Your task to perform on an android device: Show me the best rated vacuum on Walmart. Image 0: 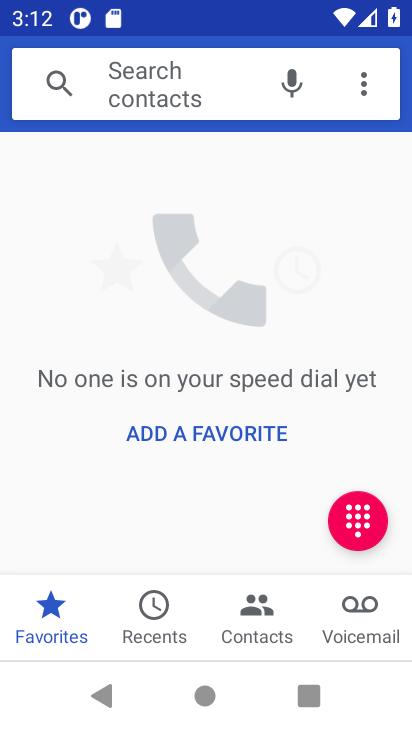
Step 0: press back button
Your task to perform on an android device: Show me the best rated vacuum on Walmart. Image 1: 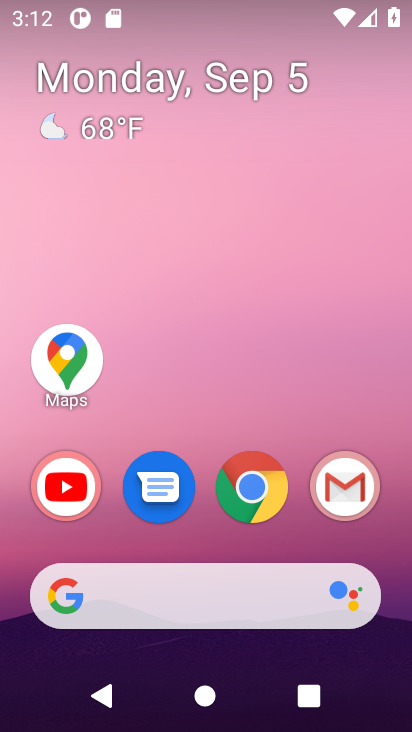
Step 1: click (268, 476)
Your task to perform on an android device: Show me the best rated vacuum on Walmart. Image 2: 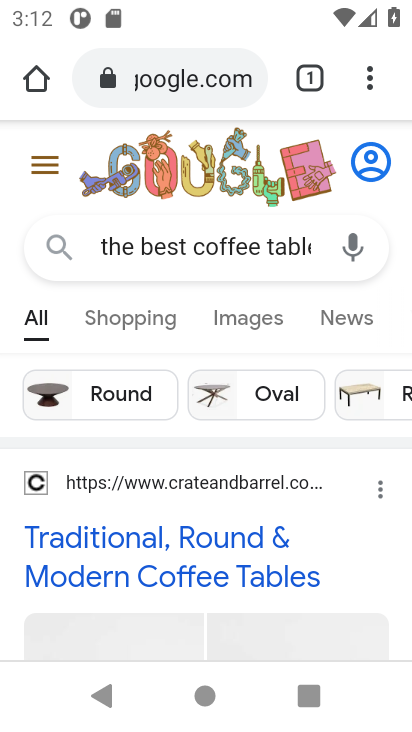
Step 2: click (172, 76)
Your task to perform on an android device: Show me the best rated vacuum on Walmart. Image 3: 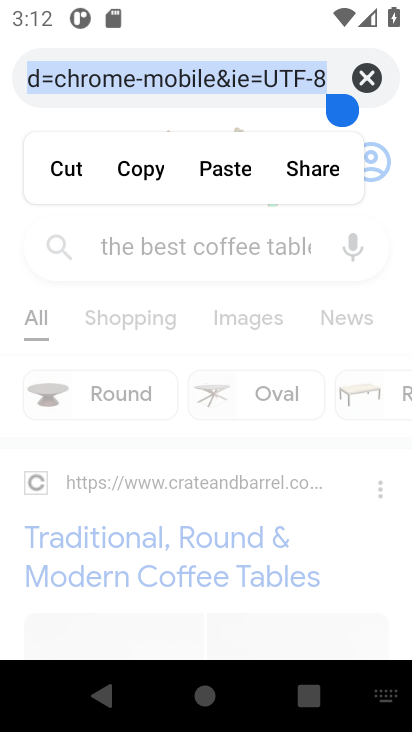
Step 3: click (373, 75)
Your task to perform on an android device: Show me the best rated vacuum on Walmart. Image 4: 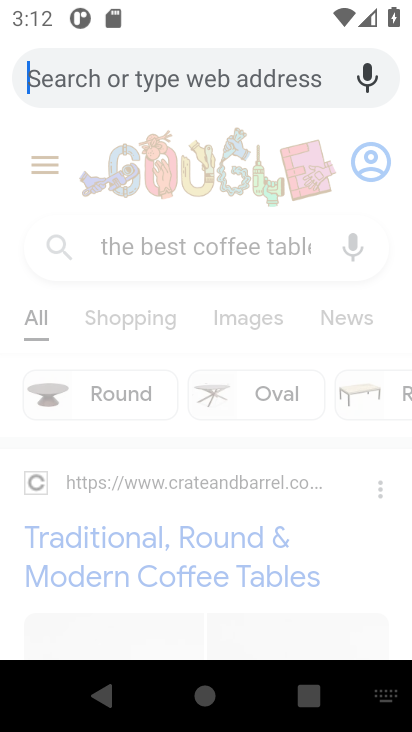
Step 4: type "the best rated vacuum on Walmart."
Your task to perform on an android device: Show me the best rated vacuum on Walmart. Image 5: 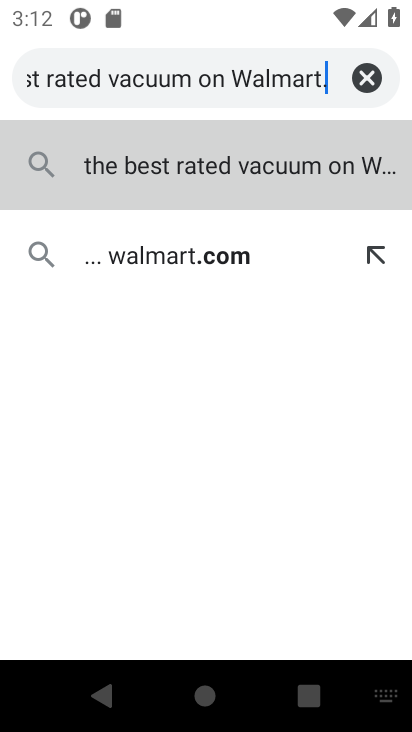
Step 5: click (310, 185)
Your task to perform on an android device: Show me the best rated vacuum on Walmart. Image 6: 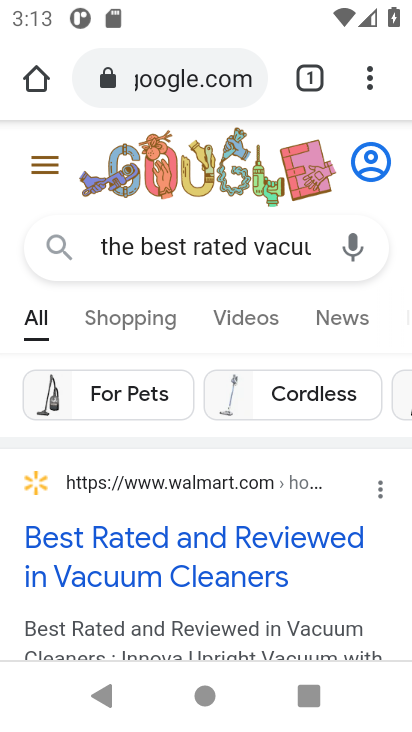
Step 6: task complete